Your task to perform on an android device: Find coffee shops on Maps Image 0: 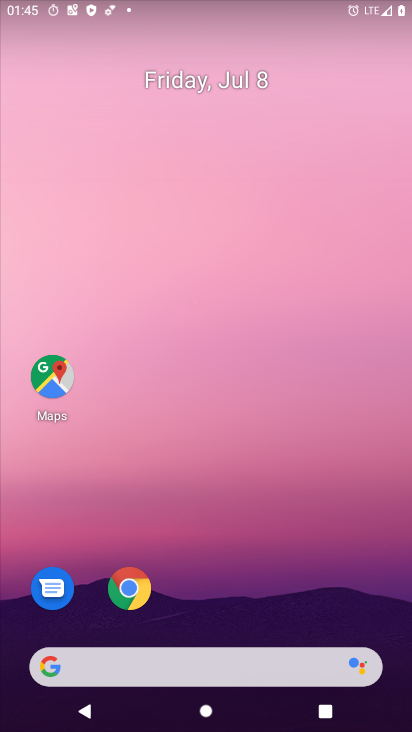
Step 0: drag from (209, 622) to (245, 229)
Your task to perform on an android device: Find coffee shops on Maps Image 1: 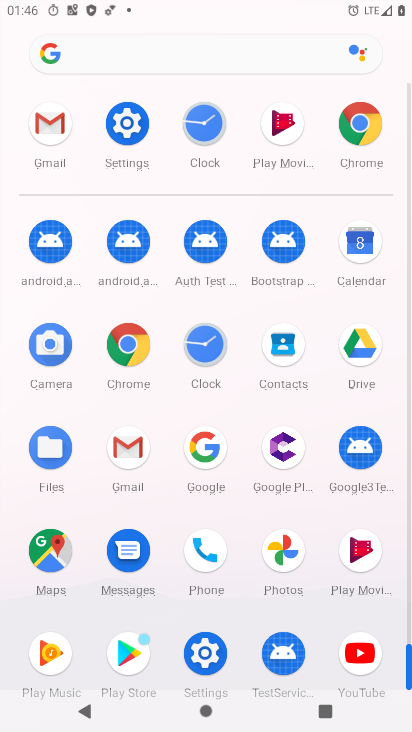
Step 1: click (34, 557)
Your task to perform on an android device: Find coffee shops on Maps Image 2: 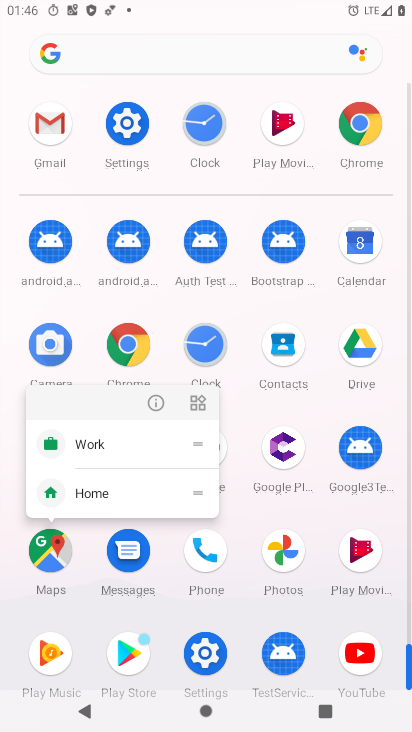
Step 2: click (147, 396)
Your task to perform on an android device: Find coffee shops on Maps Image 3: 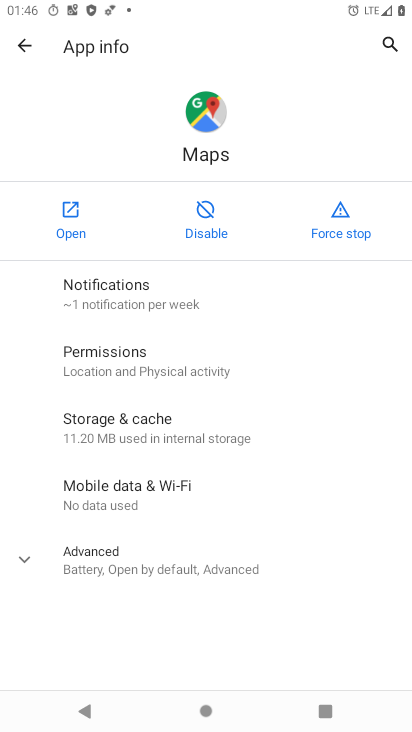
Step 3: click (61, 235)
Your task to perform on an android device: Find coffee shops on Maps Image 4: 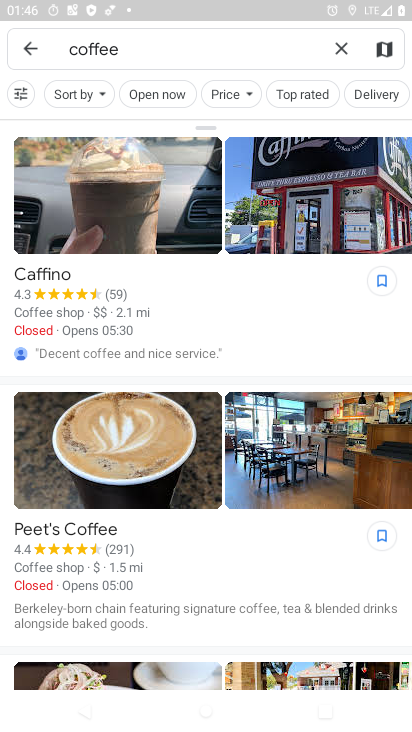
Step 4: task complete